Your task to perform on an android device: show emergency info Image 0: 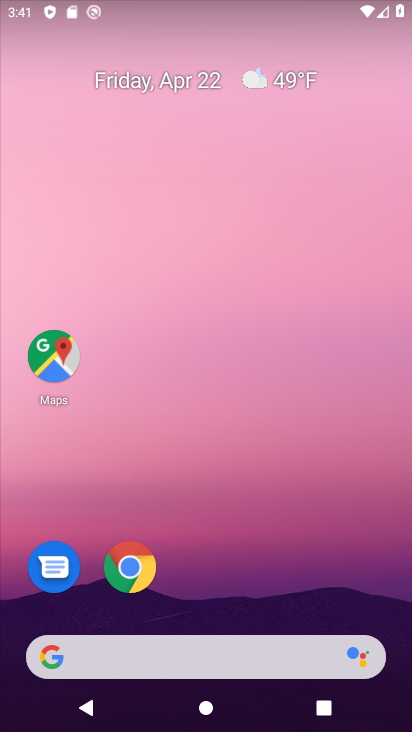
Step 0: drag from (222, 702) to (222, 220)
Your task to perform on an android device: show emergency info Image 1: 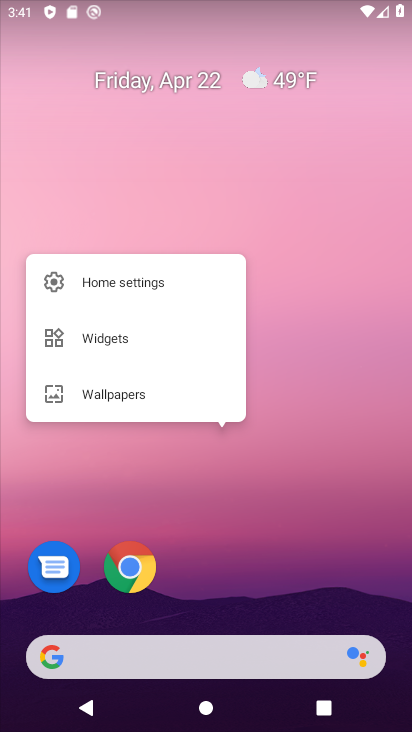
Step 1: click (268, 478)
Your task to perform on an android device: show emergency info Image 2: 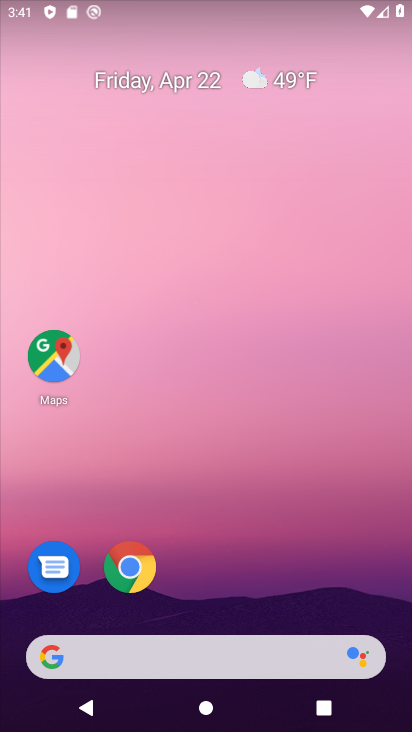
Step 2: drag from (228, 569) to (228, 250)
Your task to perform on an android device: show emergency info Image 3: 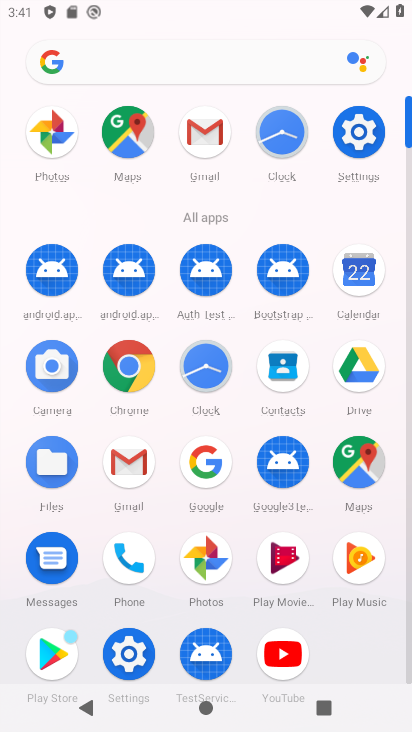
Step 3: click (360, 126)
Your task to perform on an android device: show emergency info Image 4: 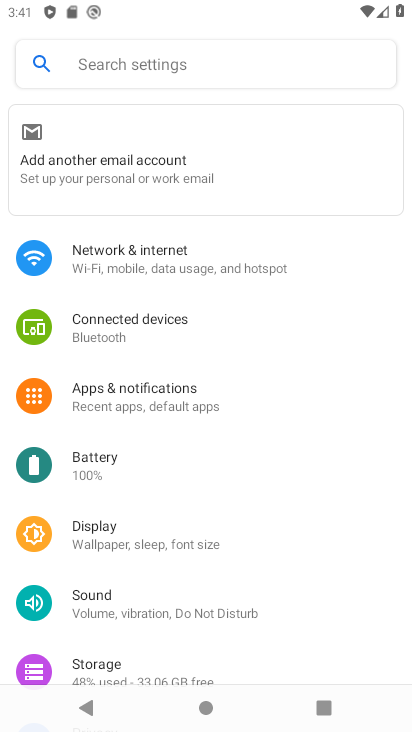
Step 4: drag from (204, 653) to (183, 171)
Your task to perform on an android device: show emergency info Image 5: 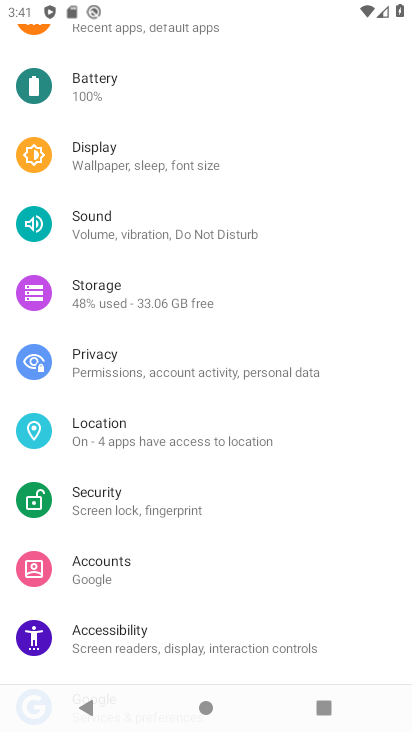
Step 5: drag from (170, 623) to (177, 243)
Your task to perform on an android device: show emergency info Image 6: 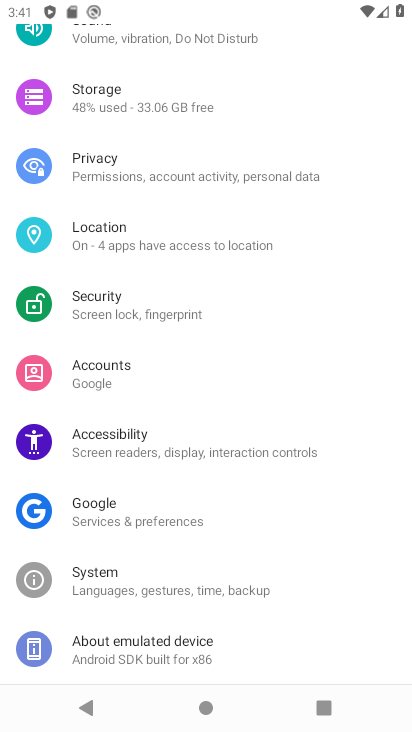
Step 6: drag from (180, 533) to (180, 266)
Your task to perform on an android device: show emergency info Image 7: 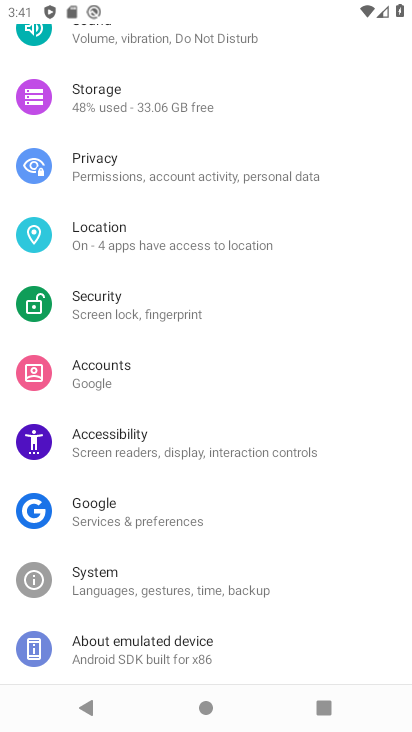
Step 7: click (151, 652)
Your task to perform on an android device: show emergency info Image 8: 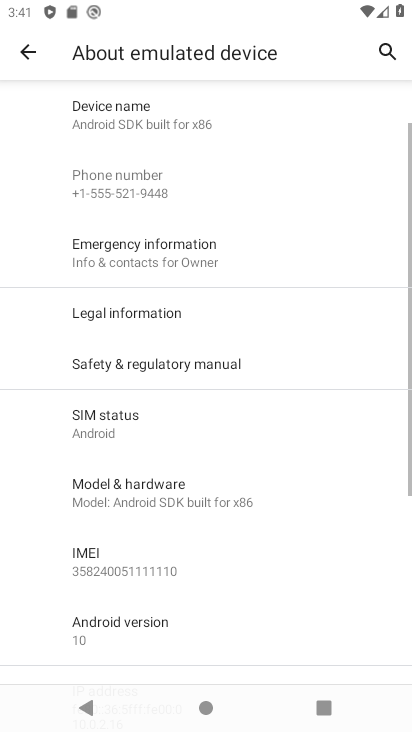
Step 8: click (151, 246)
Your task to perform on an android device: show emergency info Image 9: 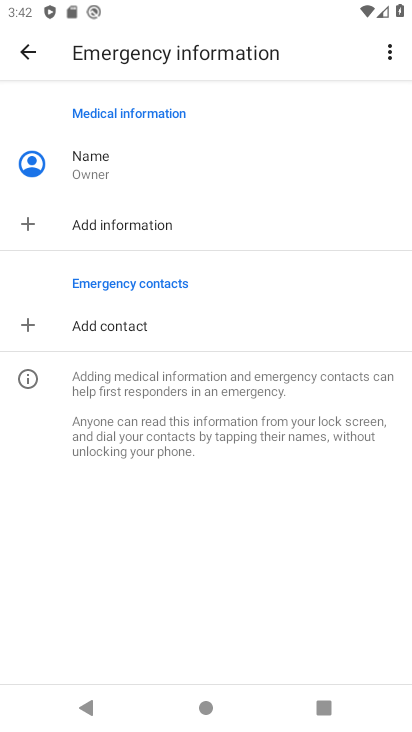
Step 9: task complete